Your task to perform on an android device: Search for sushi restaurants on Maps Image 0: 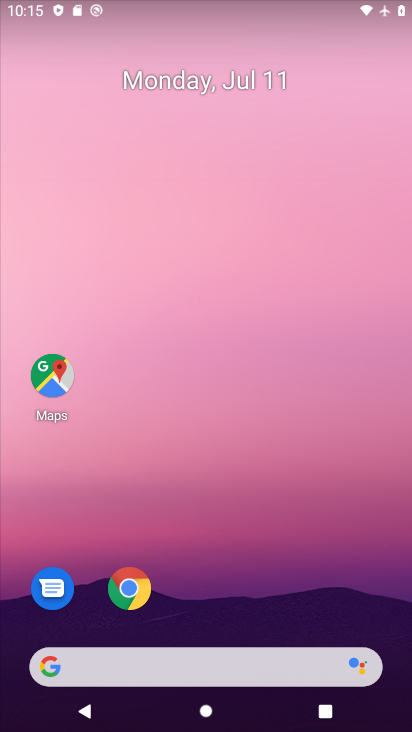
Step 0: click (44, 381)
Your task to perform on an android device: Search for sushi restaurants on Maps Image 1: 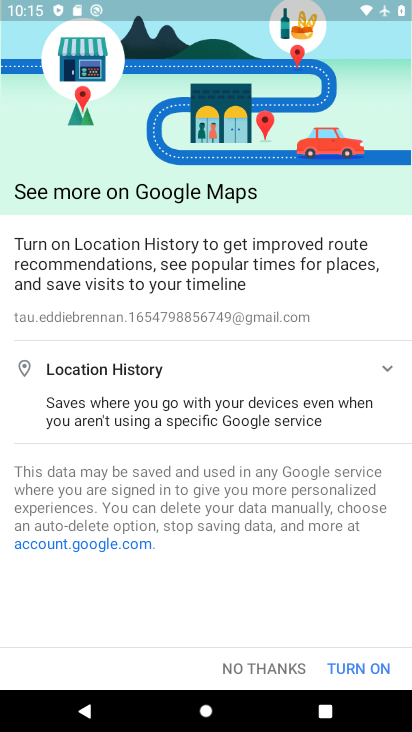
Step 1: click (264, 670)
Your task to perform on an android device: Search for sushi restaurants on Maps Image 2: 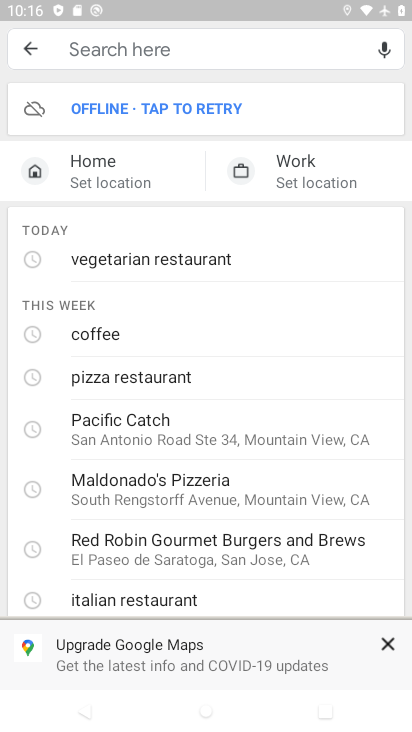
Step 2: click (156, 42)
Your task to perform on an android device: Search for sushi restaurants on Maps Image 3: 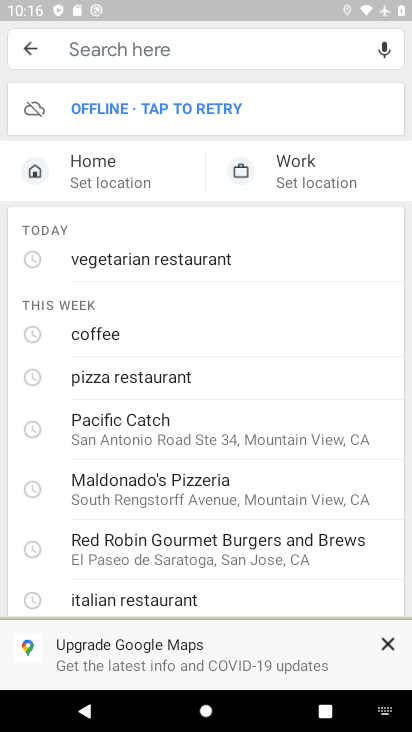
Step 3: type "sushi restaurants"
Your task to perform on an android device: Search for sushi restaurants on Maps Image 4: 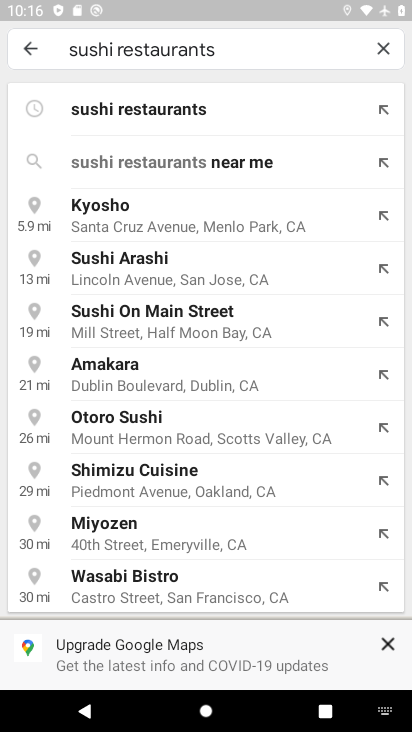
Step 4: click (184, 108)
Your task to perform on an android device: Search for sushi restaurants on Maps Image 5: 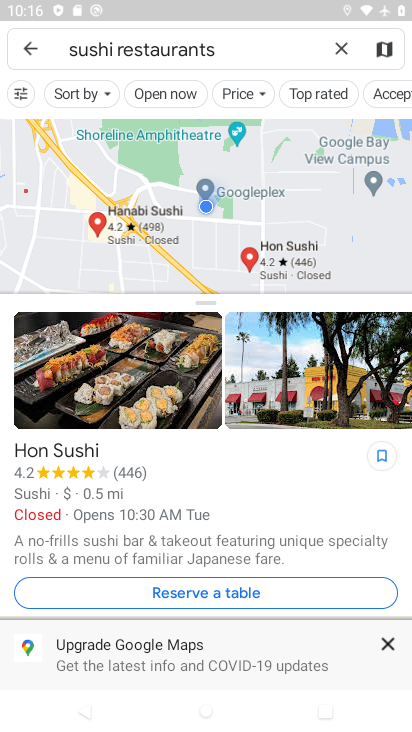
Step 5: task complete